Your task to perform on an android device: Do I have any events today? Image 0: 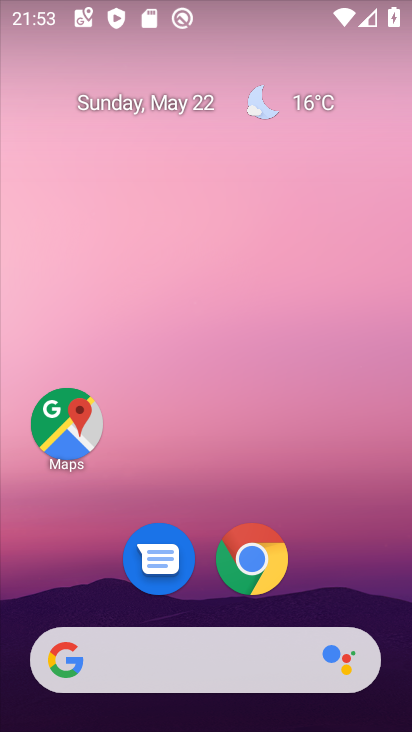
Step 0: press home button
Your task to perform on an android device: Do I have any events today? Image 1: 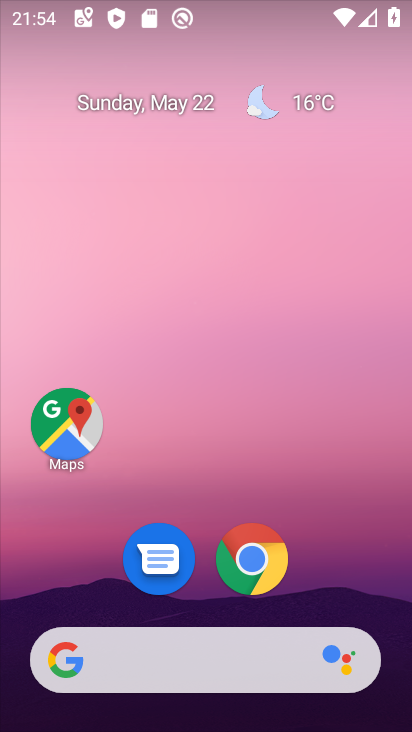
Step 1: drag from (246, 712) to (221, 198)
Your task to perform on an android device: Do I have any events today? Image 2: 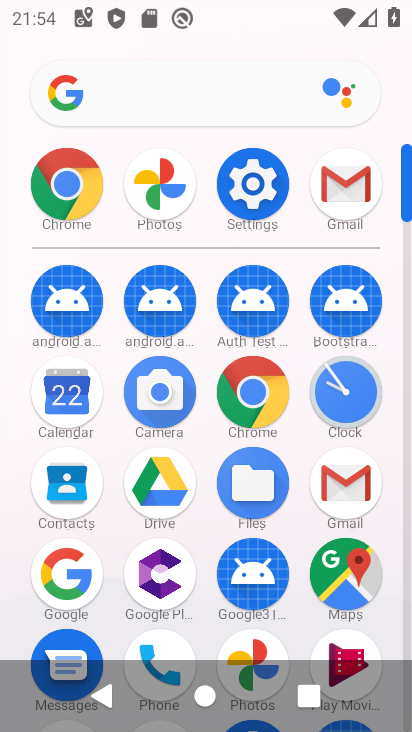
Step 2: click (46, 396)
Your task to perform on an android device: Do I have any events today? Image 3: 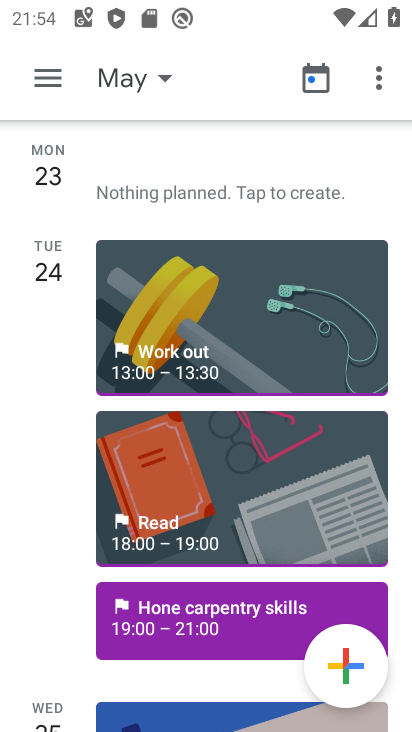
Step 3: click (71, 76)
Your task to perform on an android device: Do I have any events today? Image 4: 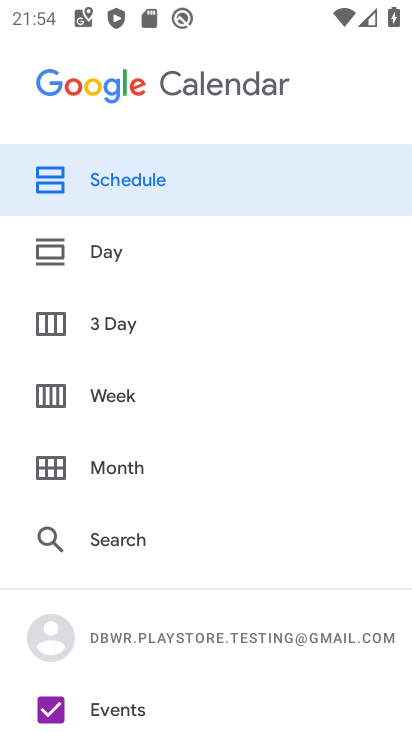
Step 4: click (128, 180)
Your task to perform on an android device: Do I have any events today? Image 5: 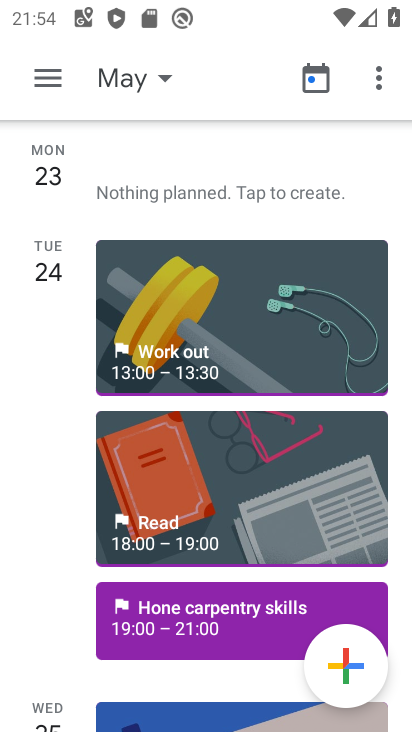
Step 5: task complete